Your task to perform on an android device: Search for the best fantasy books on Goodreads. Image 0: 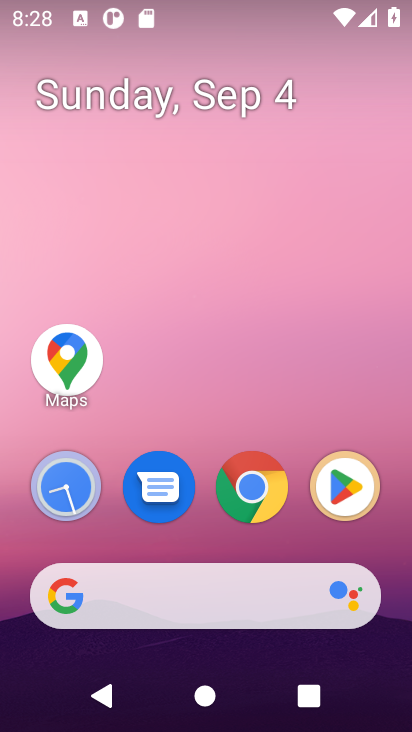
Step 0: task complete